Your task to perform on an android device: see tabs open on other devices in the chrome app Image 0: 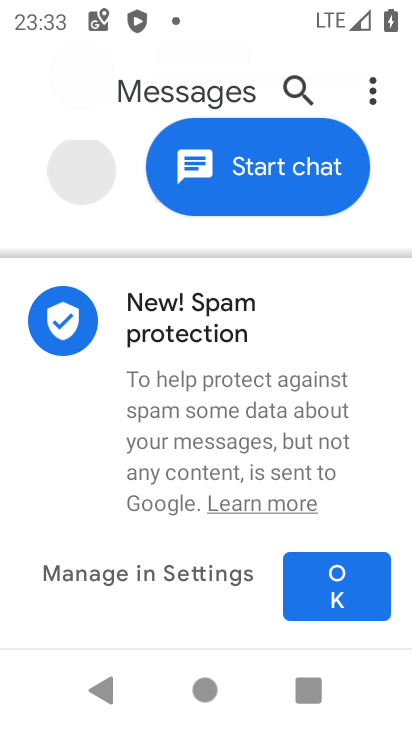
Step 0: press home button
Your task to perform on an android device: see tabs open on other devices in the chrome app Image 1: 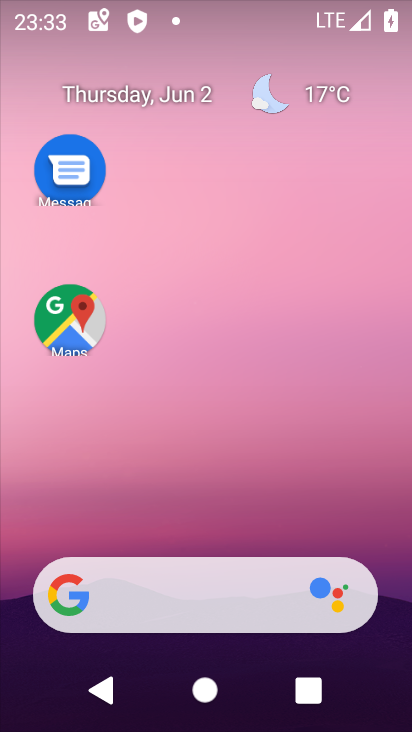
Step 1: drag from (255, 488) to (266, 104)
Your task to perform on an android device: see tabs open on other devices in the chrome app Image 2: 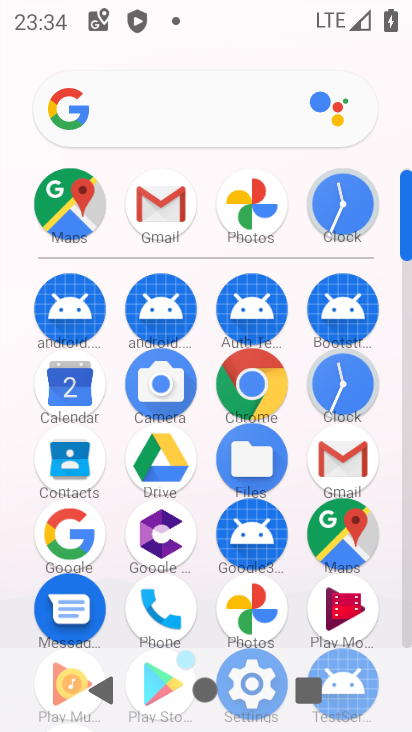
Step 2: click (224, 381)
Your task to perform on an android device: see tabs open on other devices in the chrome app Image 3: 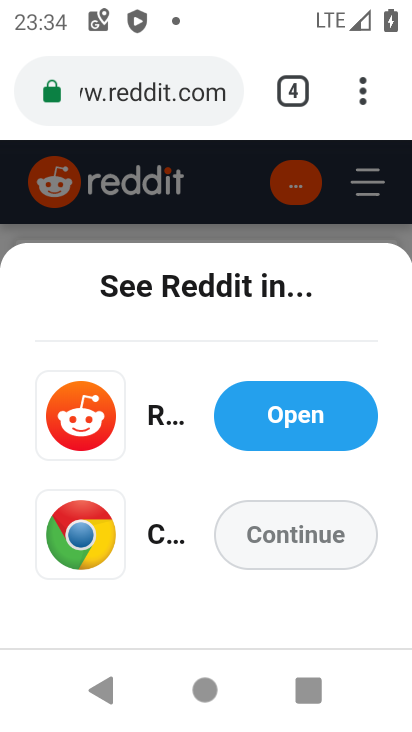
Step 3: task complete